Your task to perform on an android device: check data usage Image 0: 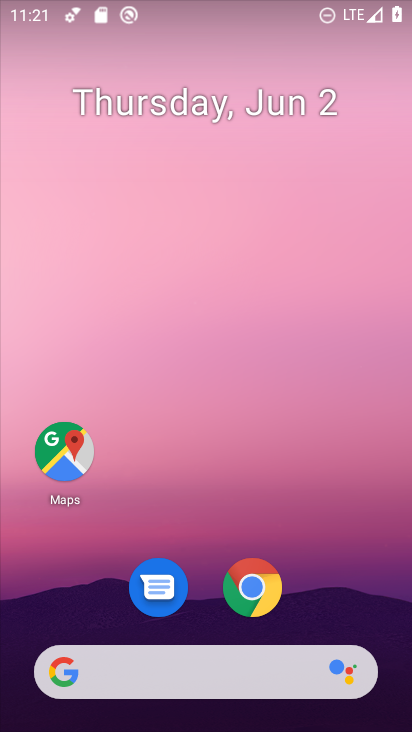
Step 0: drag from (381, 616) to (339, 207)
Your task to perform on an android device: check data usage Image 1: 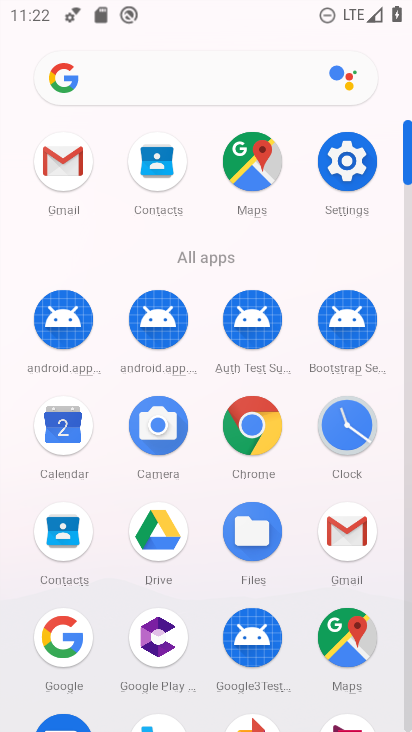
Step 1: click (353, 183)
Your task to perform on an android device: check data usage Image 2: 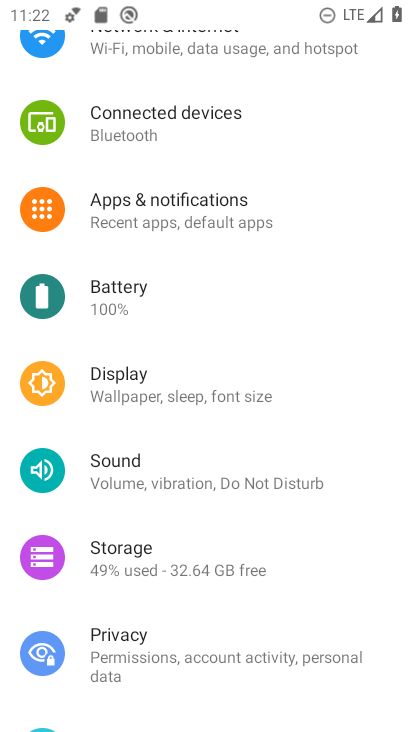
Step 2: drag from (201, 143) to (178, 505)
Your task to perform on an android device: check data usage Image 3: 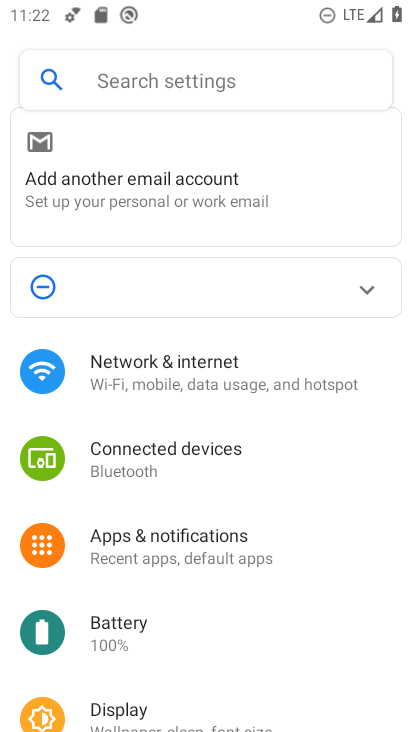
Step 3: click (150, 367)
Your task to perform on an android device: check data usage Image 4: 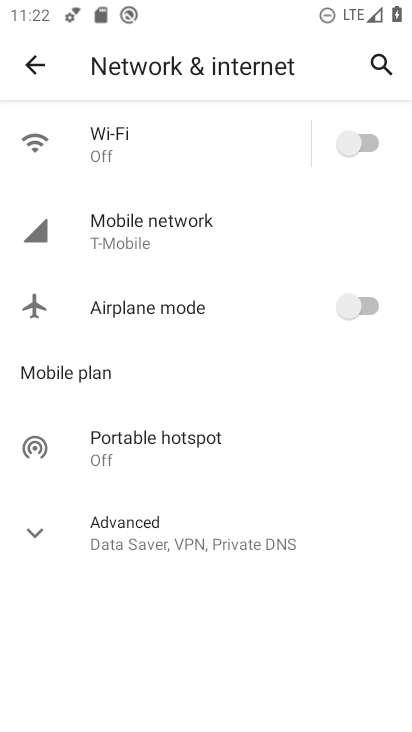
Step 4: click (151, 146)
Your task to perform on an android device: check data usage Image 5: 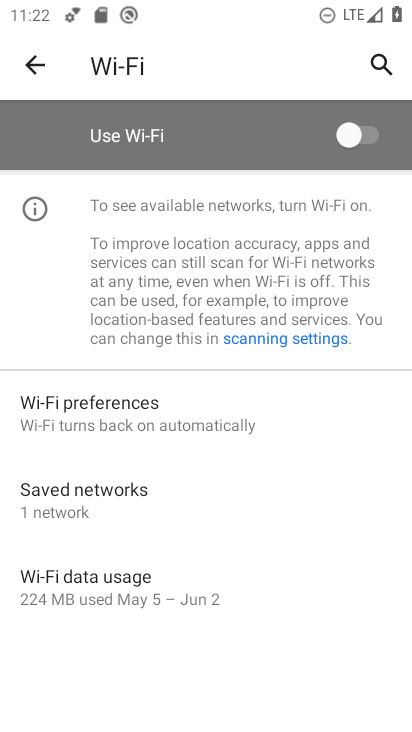
Step 5: click (206, 592)
Your task to perform on an android device: check data usage Image 6: 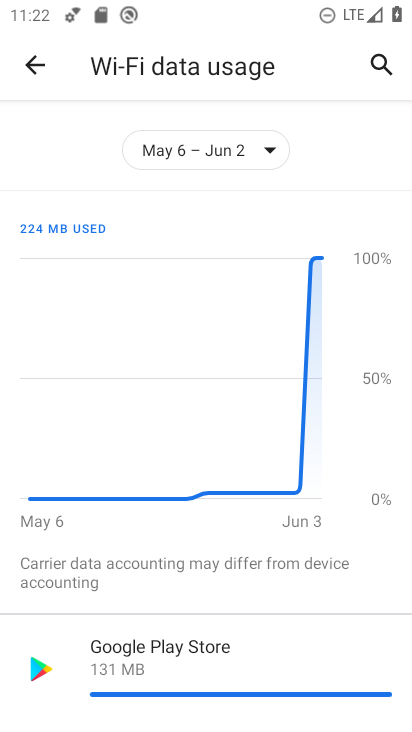
Step 6: task complete